Your task to perform on an android device: Open internet settings Image 0: 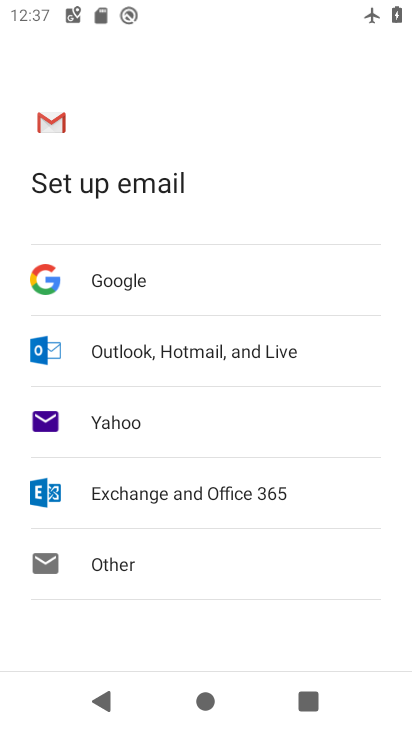
Step 0: press home button
Your task to perform on an android device: Open internet settings Image 1: 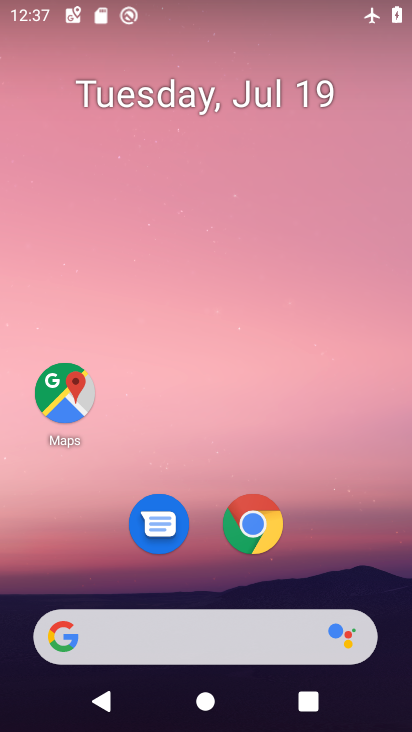
Step 1: drag from (331, 562) to (353, 50)
Your task to perform on an android device: Open internet settings Image 2: 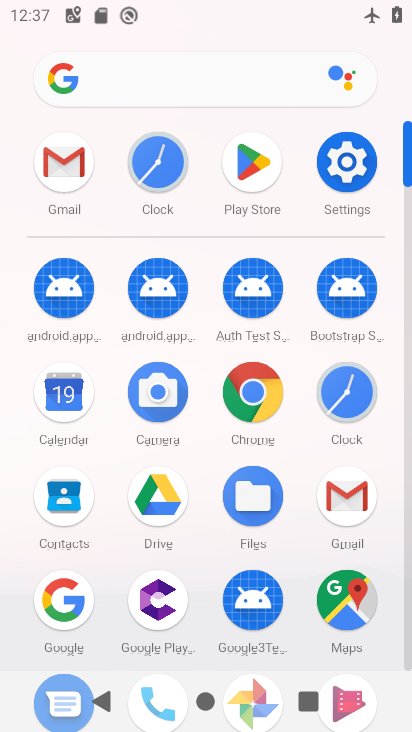
Step 2: click (348, 167)
Your task to perform on an android device: Open internet settings Image 3: 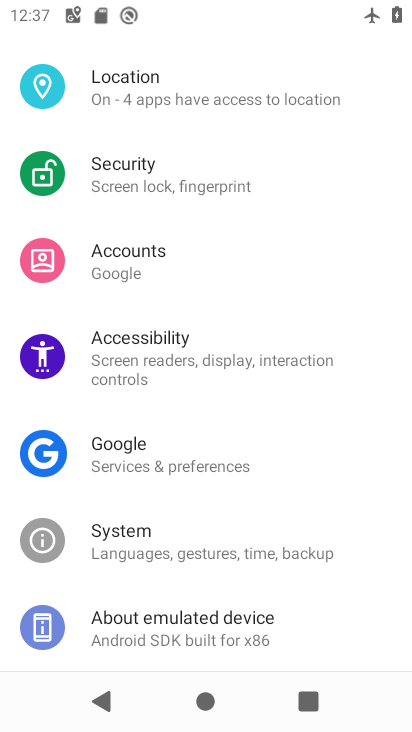
Step 3: drag from (279, 207) to (307, 672)
Your task to perform on an android device: Open internet settings Image 4: 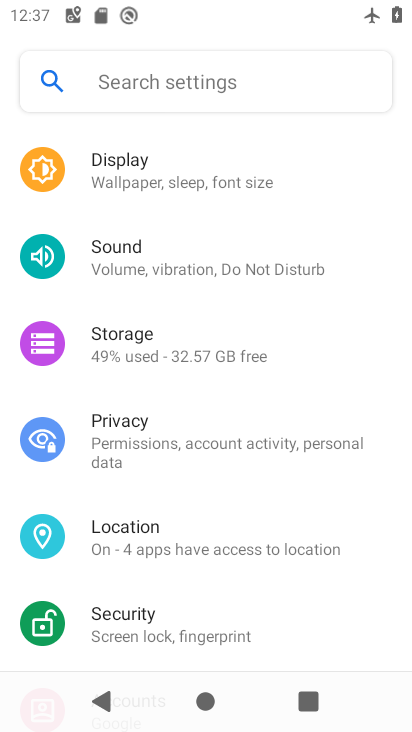
Step 4: drag from (243, 226) to (265, 597)
Your task to perform on an android device: Open internet settings Image 5: 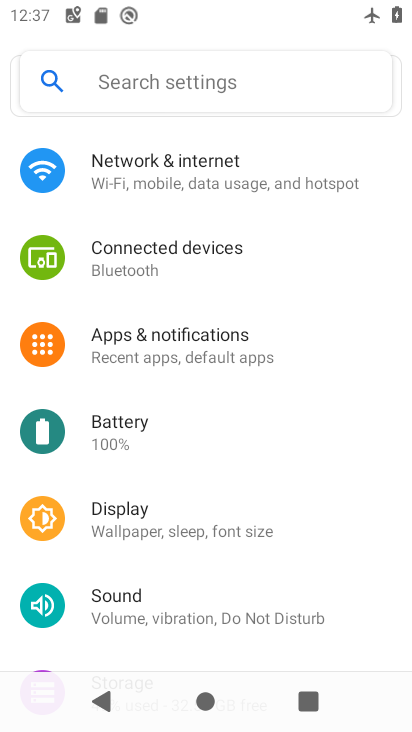
Step 5: click (236, 174)
Your task to perform on an android device: Open internet settings Image 6: 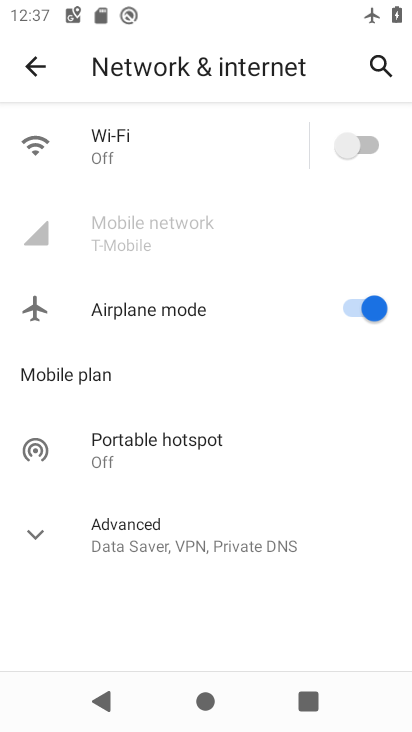
Step 6: task complete